Your task to perform on an android device: Open Yahoo.com Image 0: 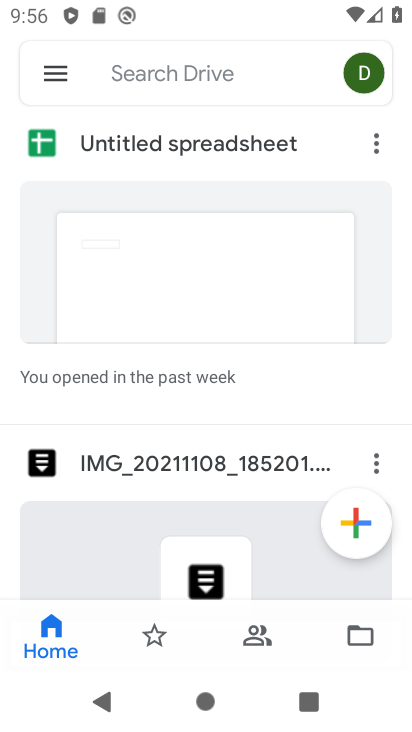
Step 0: press home button
Your task to perform on an android device: Open Yahoo.com Image 1: 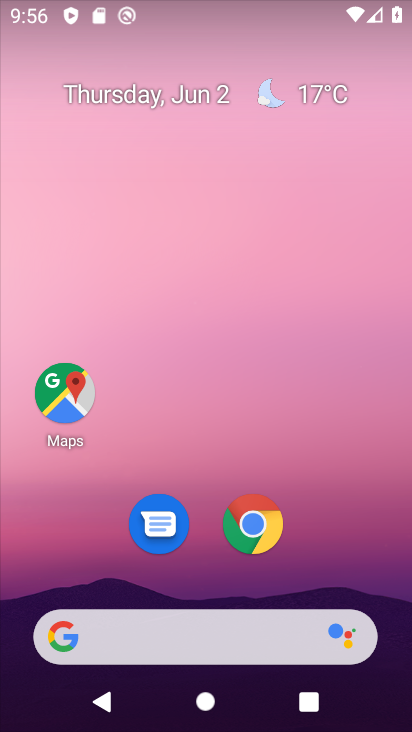
Step 1: click (268, 648)
Your task to perform on an android device: Open Yahoo.com Image 2: 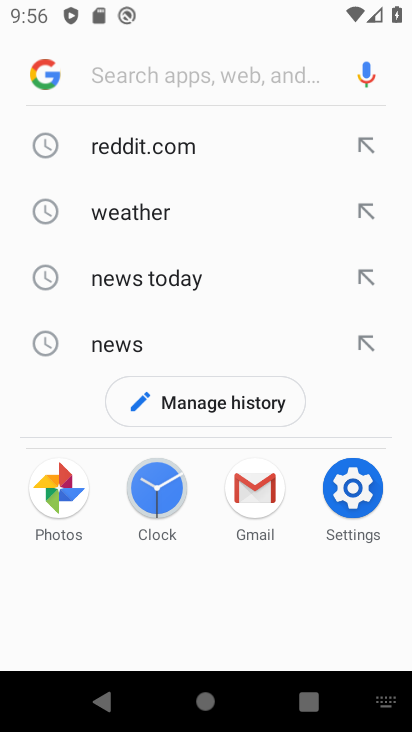
Step 2: type "yahoo.com"
Your task to perform on an android device: Open Yahoo.com Image 3: 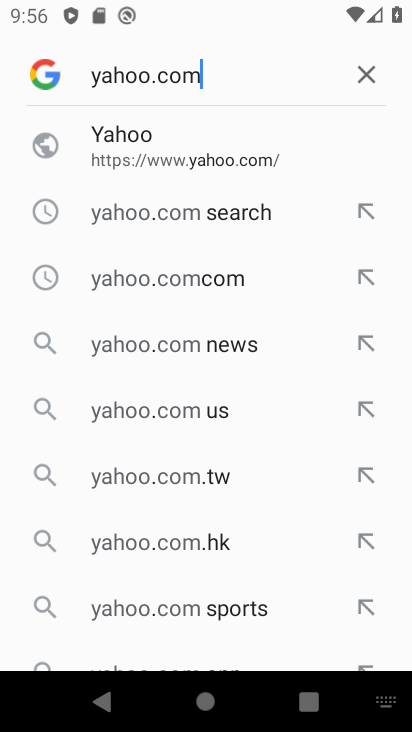
Step 3: click (121, 145)
Your task to perform on an android device: Open Yahoo.com Image 4: 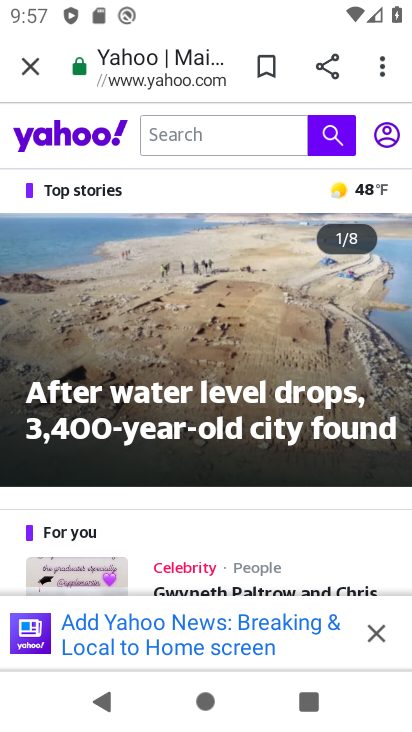
Step 4: task complete